Your task to perform on an android device: clear history in the chrome app Image 0: 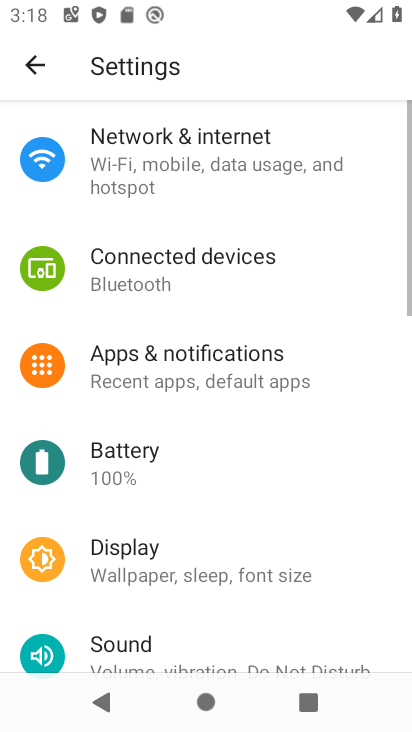
Step 0: press home button
Your task to perform on an android device: clear history in the chrome app Image 1: 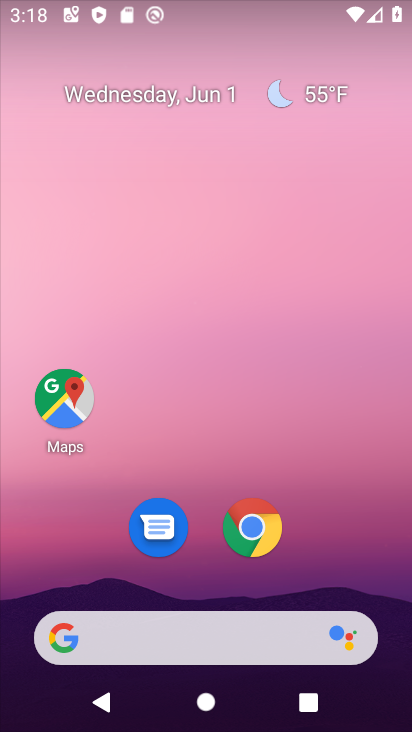
Step 1: click (243, 538)
Your task to perform on an android device: clear history in the chrome app Image 2: 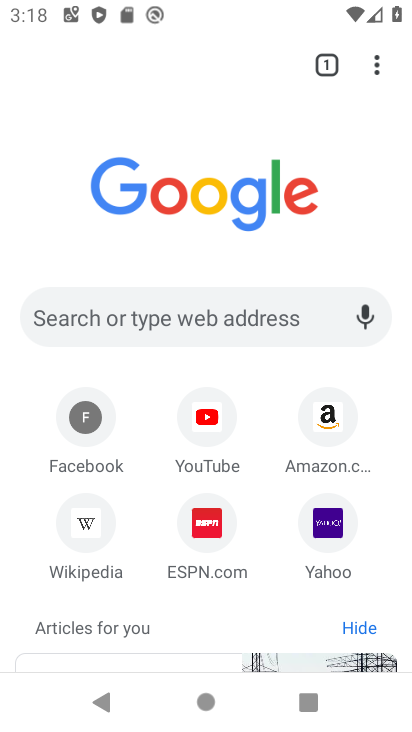
Step 2: task complete